Your task to perform on an android device: turn on improve location accuracy Image 0: 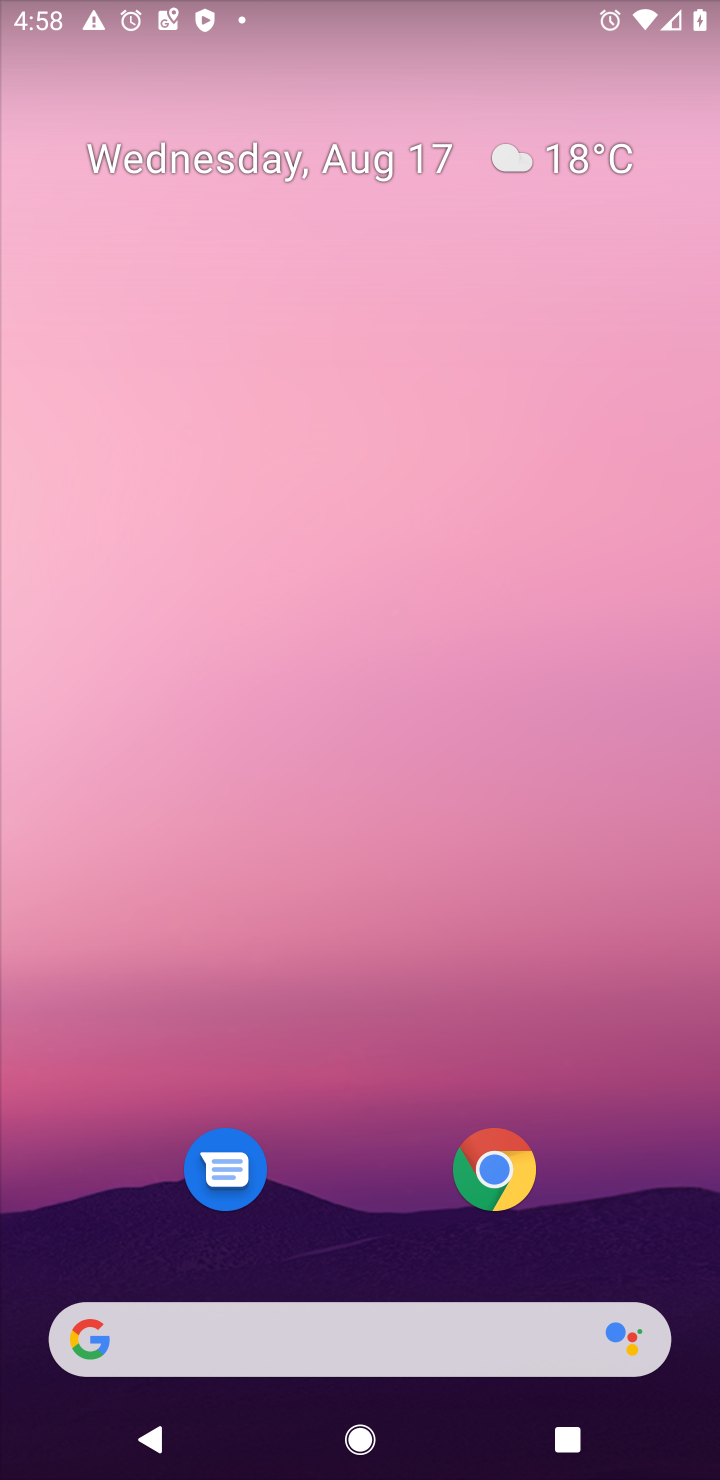
Step 0: drag from (423, 1000) to (500, 144)
Your task to perform on an android device: turn on improve location accuracy Image 1: 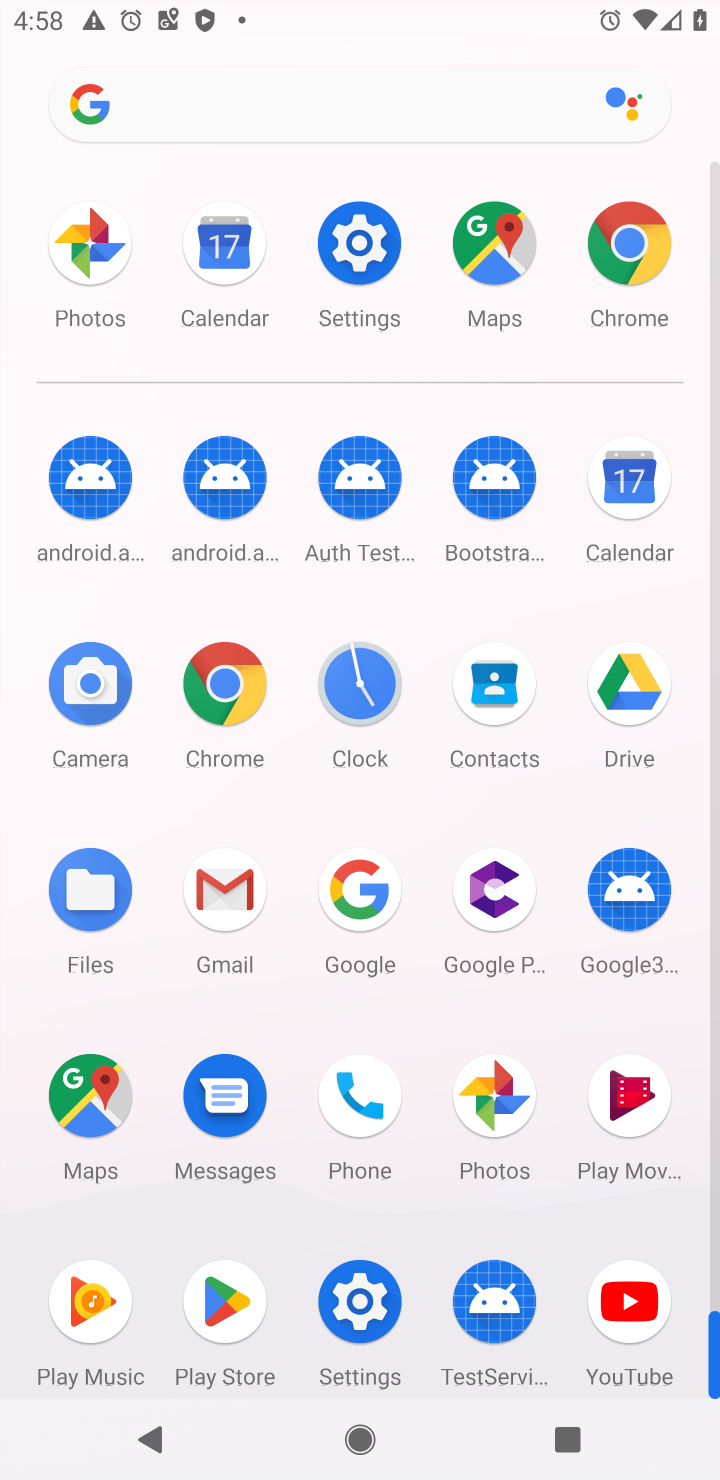
Step 1: click (380, 1302)
Your task to perform on an android device: turn on improve location accuracy Image 2: 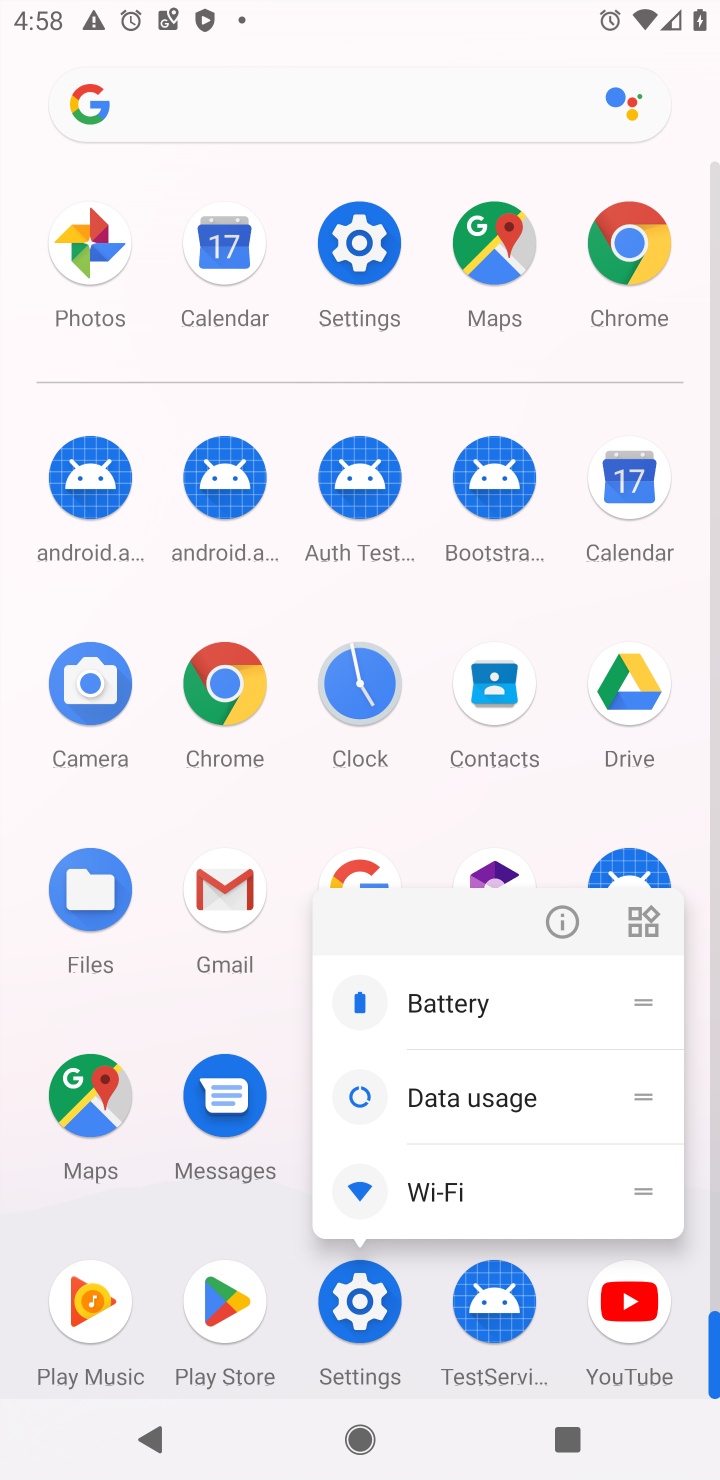
Step 2: click (354, 1311)
Your task to perform on an android device: turn on improve location accuracy Image 3: 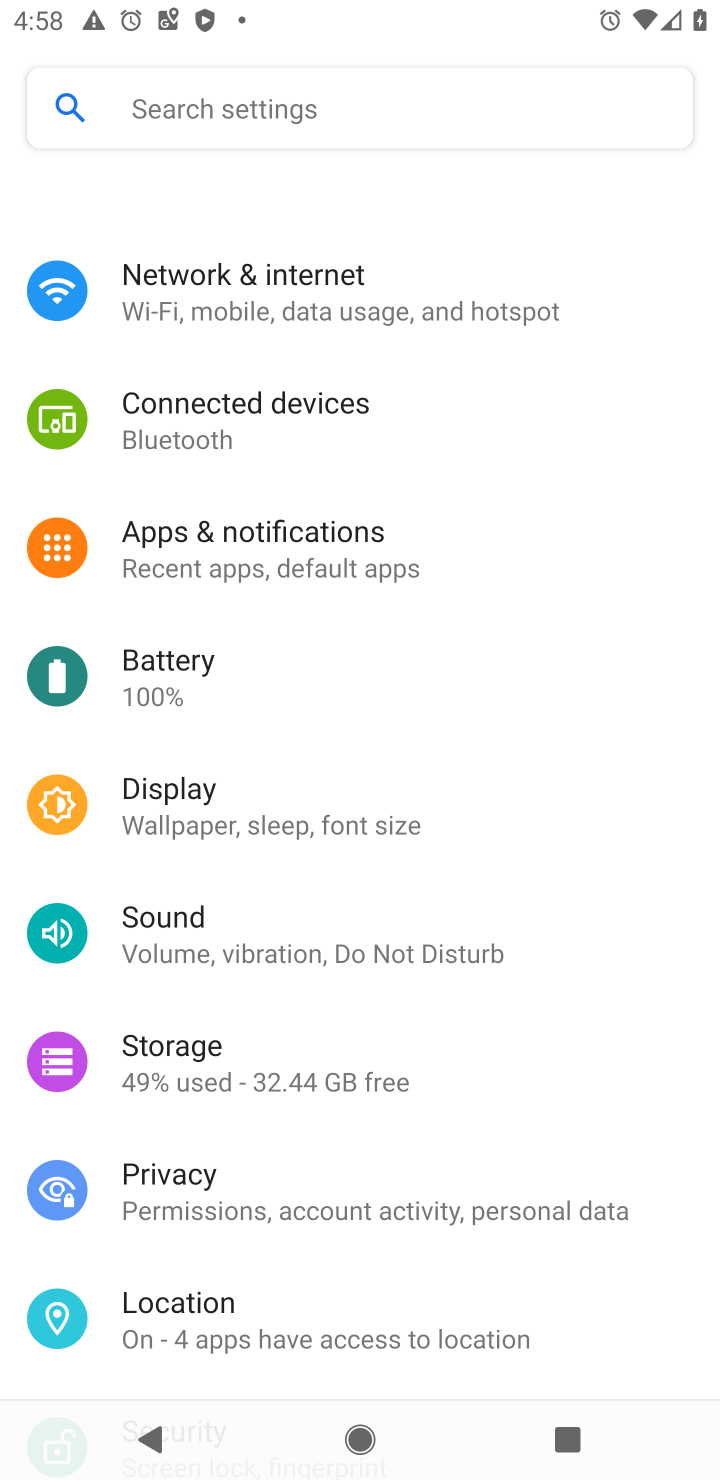
Step 3: click (361, 1293)
Your task to perform on an android device: turn on improve location accuracy Image 4: 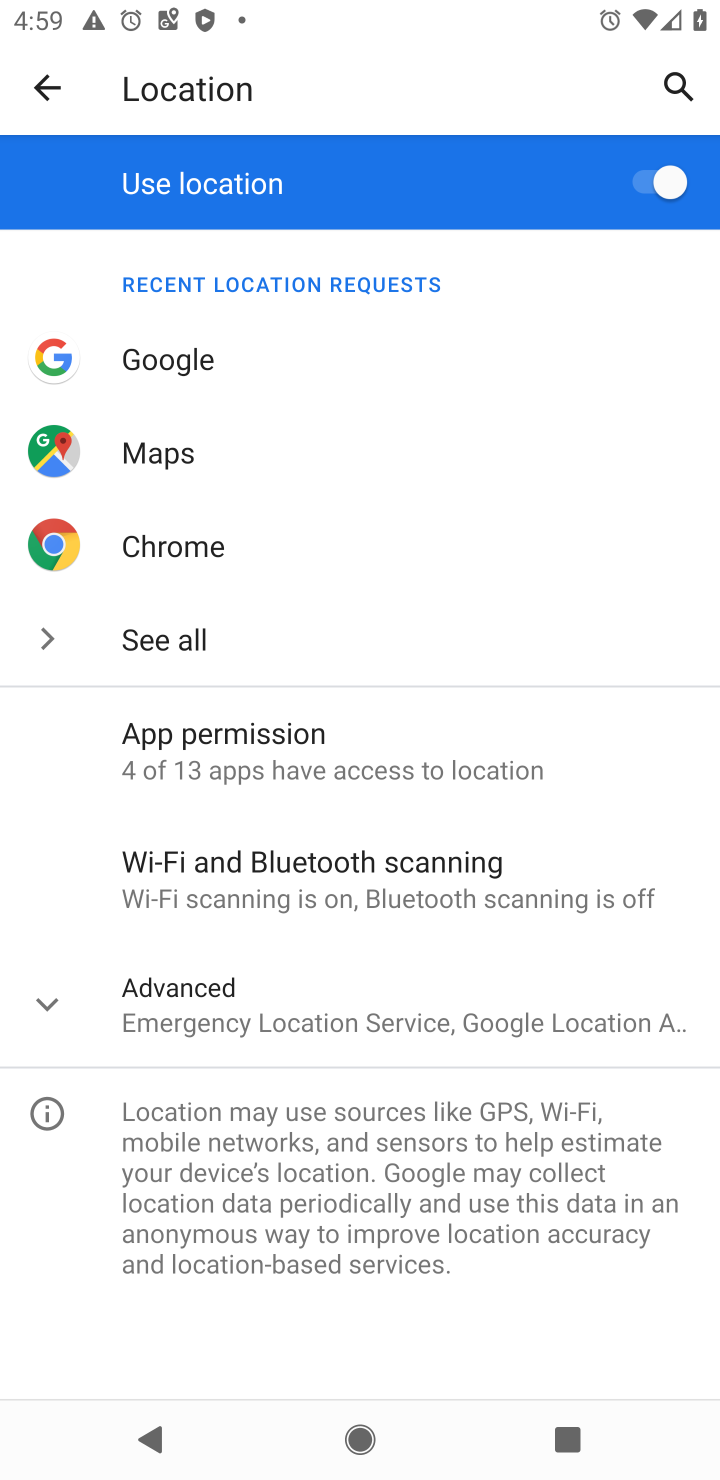
Step 4: click (220, 998)
Your task to perform on an android device: turn on improve location accuracy Image 5: 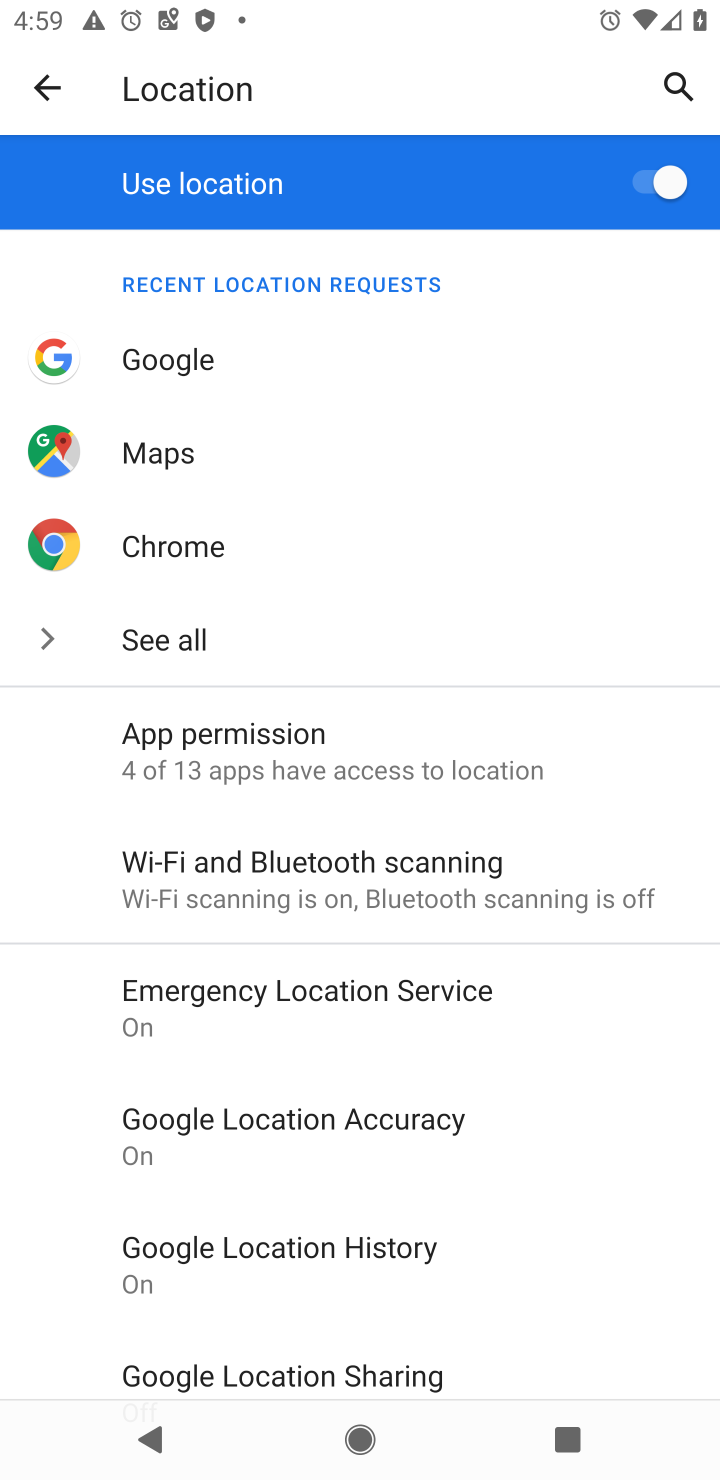
Step 5: click (354, 1106)
Your task to perform on an android device: turn on improve location accuracy Image 6: 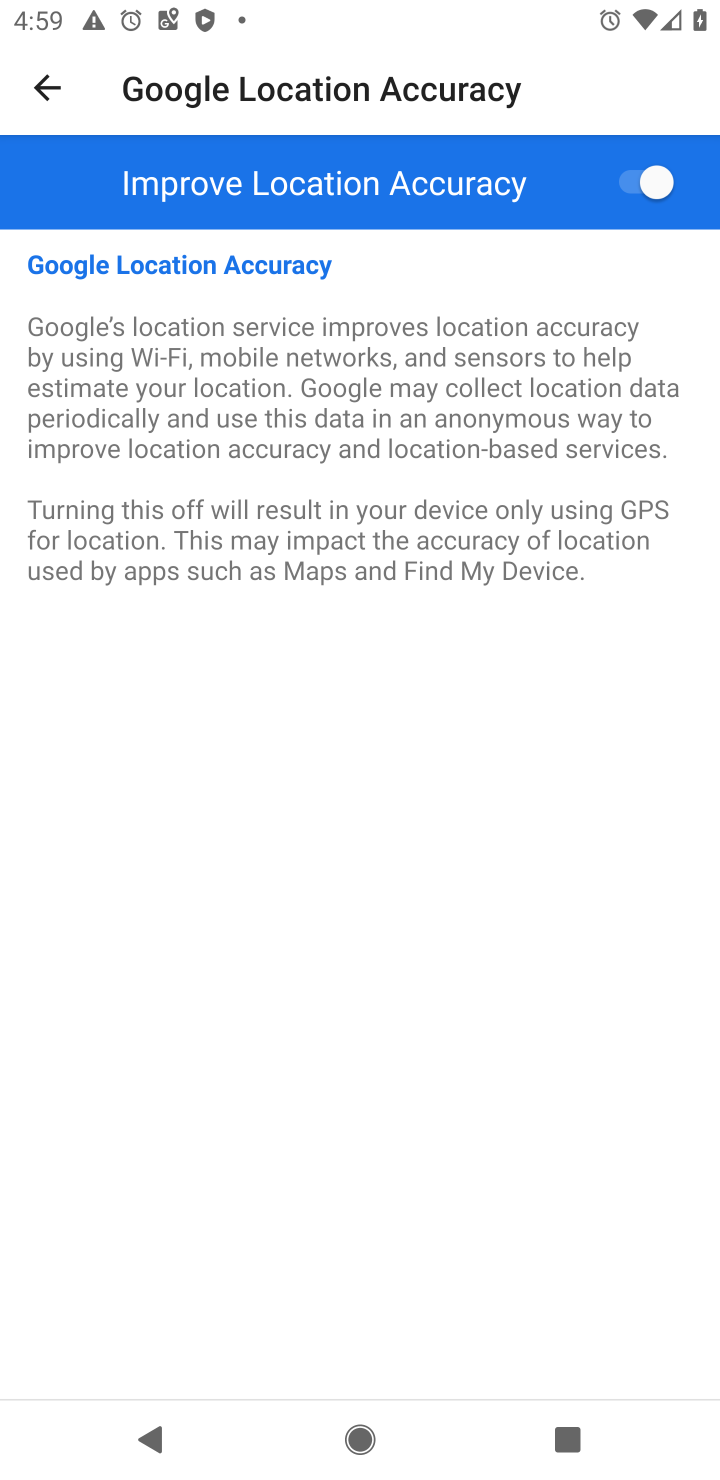
Step 6: task complete